Your task to perform on an android device: Open the calendar and show me this week's events? Image 0: 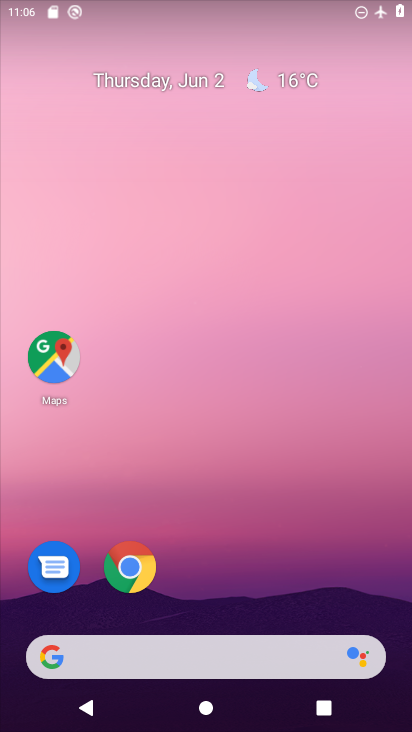
Step 0: drag from (144, 651) to (131, 47)
Your task to perform on an android device: Open the calendar and show me this week's events? Image 1: 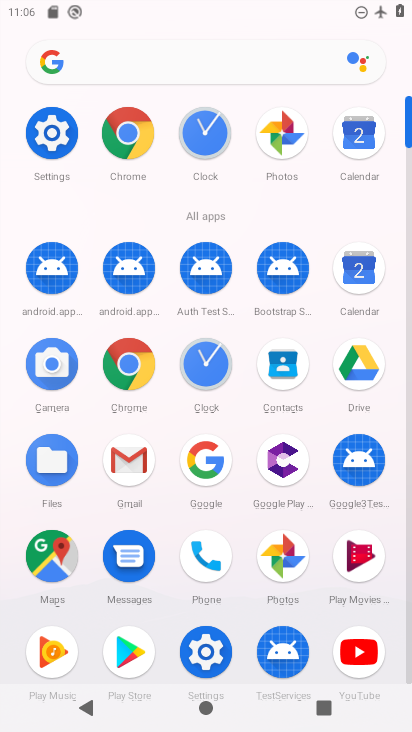
Step 1: click (358, 145)
Your task to perform on an android device: Open the calendar and show me this week's events? Image 2: 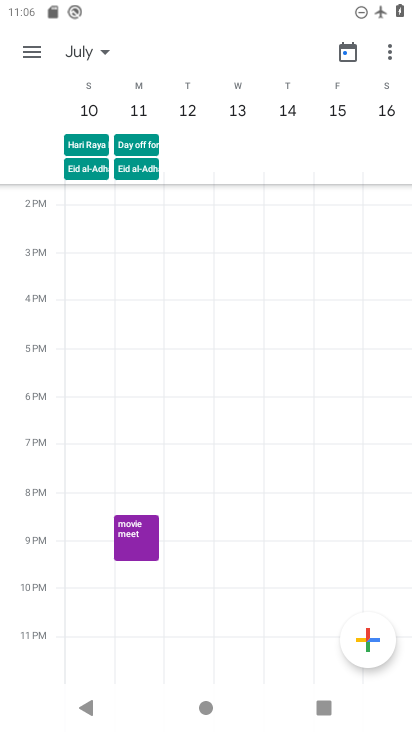
Step 2: click (108, 54)
Your task to perform on an android device: Open the calendar and show me this week's events? Image 3: 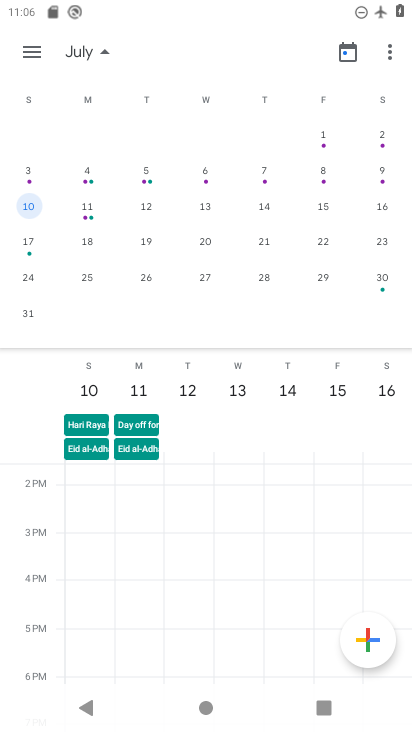
Step 3: drag from (34, 131) to (397, 142)
Your task to perform on an android device: Open the calendar and show me this week's events? Image 4: 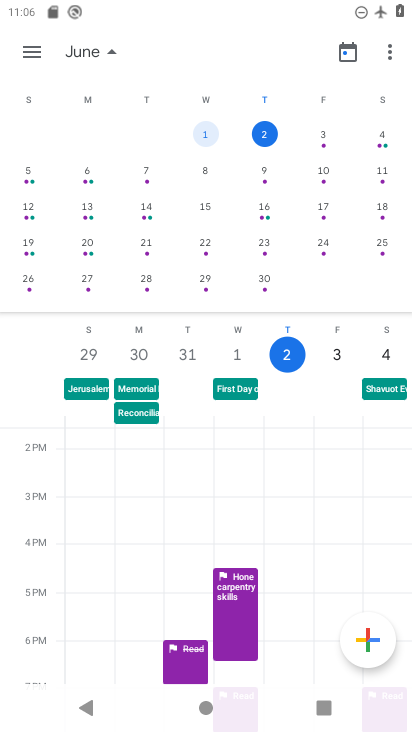
Step 4: click (261, 132)
Your task to perform on an android device: Open the calendar and show me this week's events? Image 5: 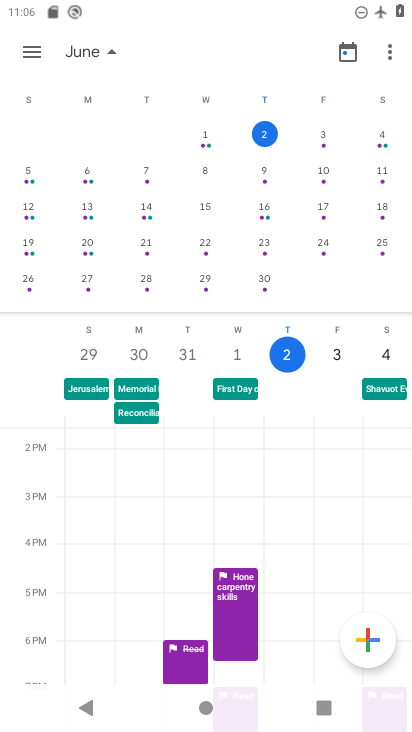
Step 5: click (110, 49)
Your task to perform on an android device: Open the calendar and show me this week's events? Image 6: 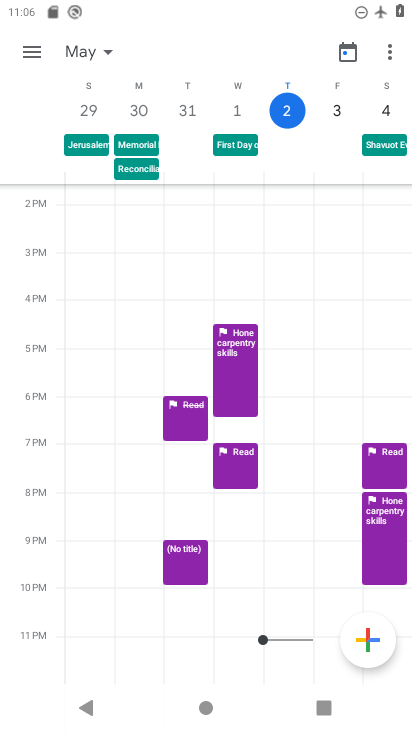
Step 6: drag from (291, 597) to (287, 238)
Your task to perform on an android device: Open the calendar and show me this week's events? Image 7: 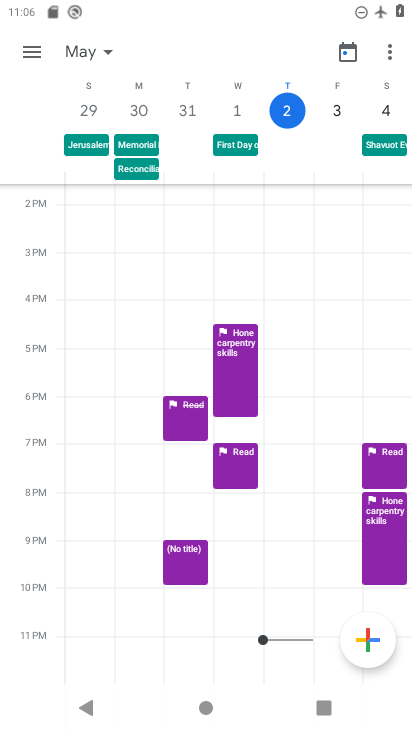
Step 7: click (30, 61)
Your task to perform on an android device: Open the calendar and show me this week's events? Image 8: 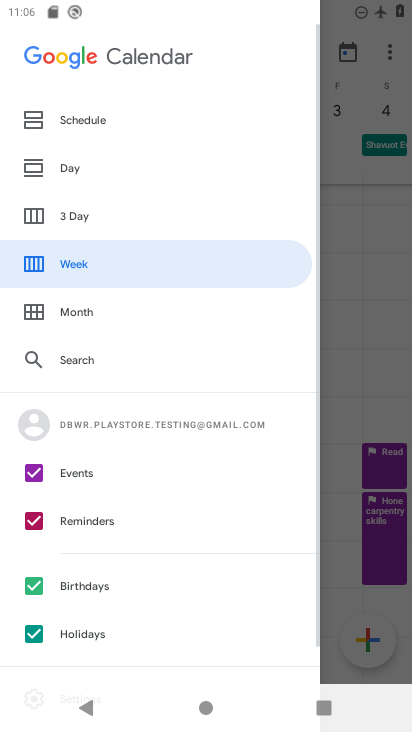
Step 8: click (27, 525)
Your task to perform on an android device: Open the calendar and show me this week's events? Image 9: 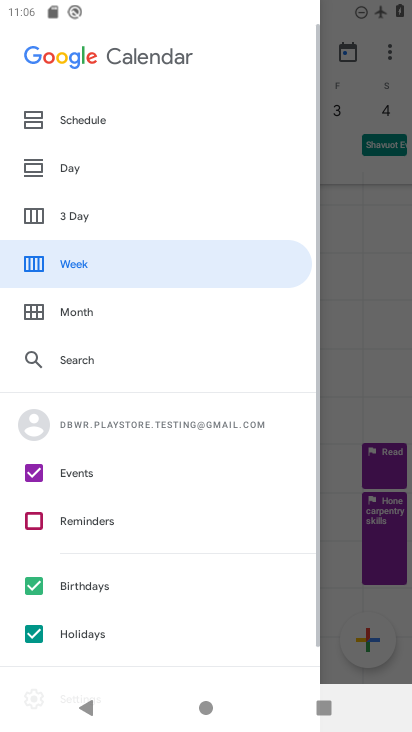
Step 9: click (31, 586)
Your task to perform on an android device: Open the calendar and show me this week's events? Image 10: 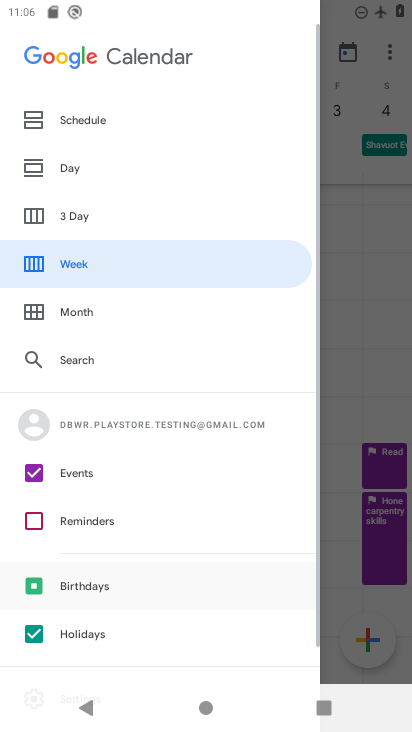
Step 10: click (32, 631)
Your task to perform on an android device: Open the calendar and show me this week's events? Image 11: 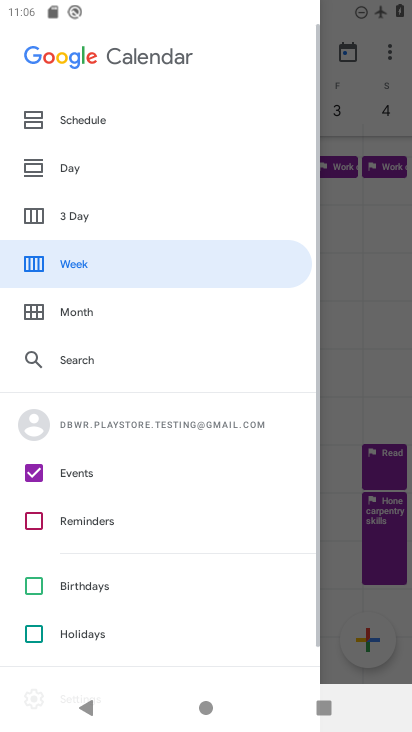
Step 11: click (339, 133)
Your task to perform on an android device: Open the calendar and show me this week's events? Image 12: 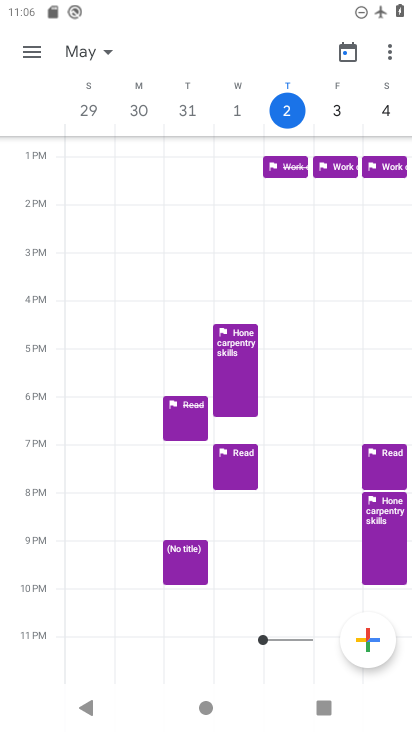
Step 12: task complete